Your task to perform on an android device: star an email in the gmail app Image 0: 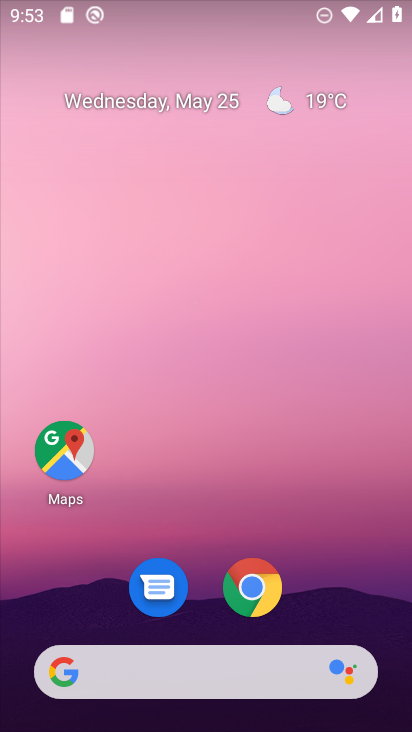
Step 0: drag from (398, 658) to (346, 77)
Your task to perform on an android device: star an email in the gmail app Image 1: 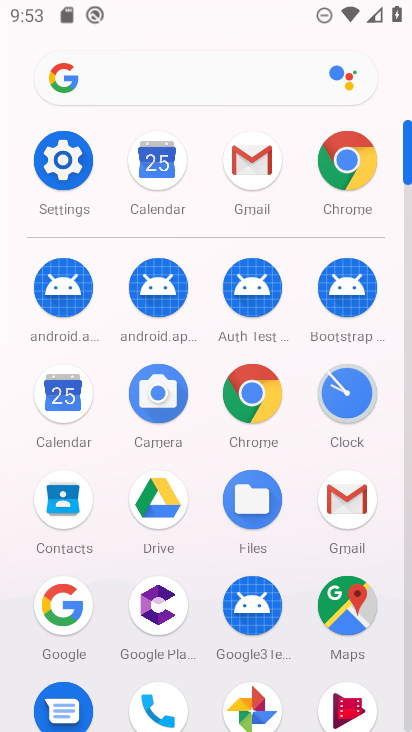
Step 1: click (342, 499)
Your task to perform on an android device: star an email in the gmail app Image 2: 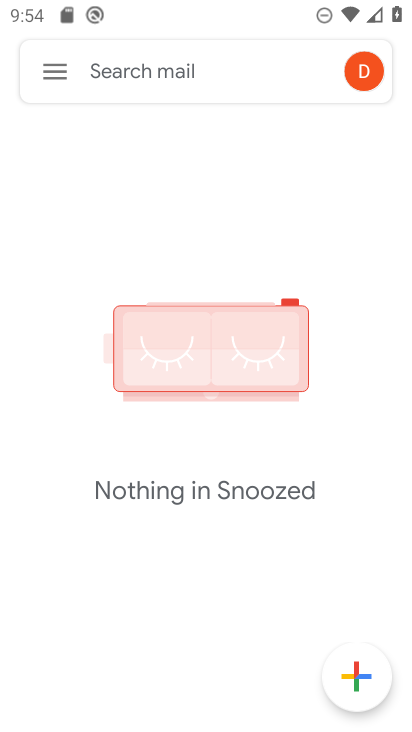
Step 2: click (44, 66)
Your task to perform on an android device: star an email in the gmail app Image 3: 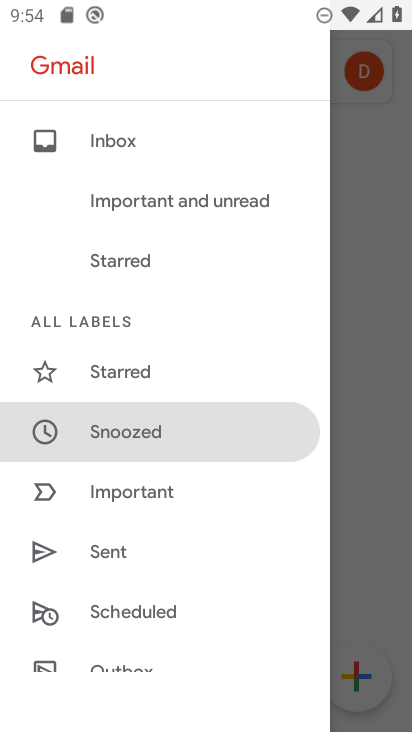
Step 3: drag from (274, 669) to (250, 152)
Your task to perform on an android device: star an email in the gmail app Image 4: 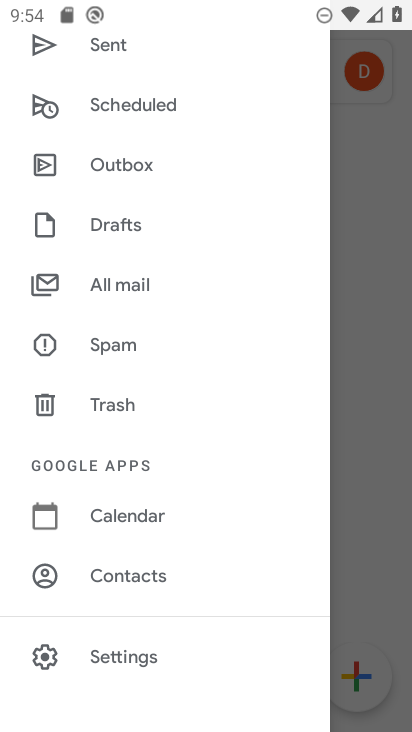
Step 4: click (123, 286)
Your task to perform on an android device: star an email in the gmail app Image 5: 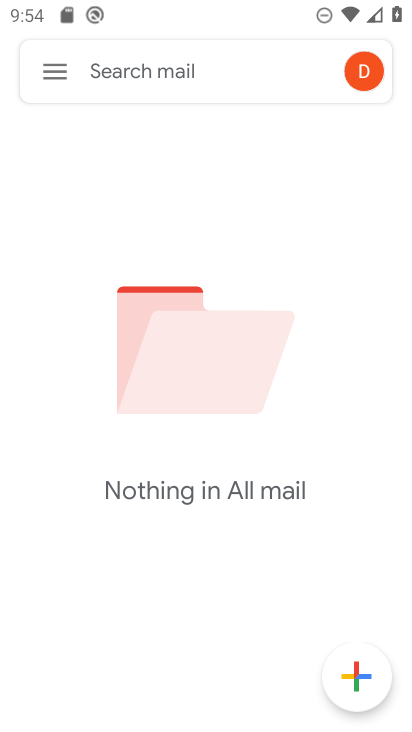
Step 5: task complete